Your task to perform on an android device: turn off wifi Image 0: 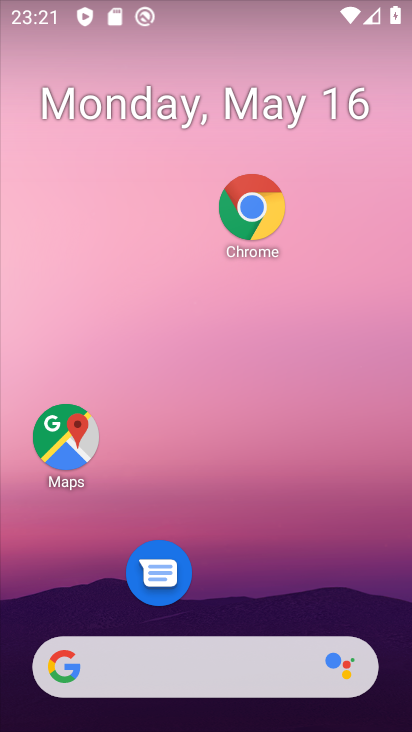
Step 0: drag from (278, 623) to (326, 0)
Your task to perform on an android device: turn off wifi Image 1: 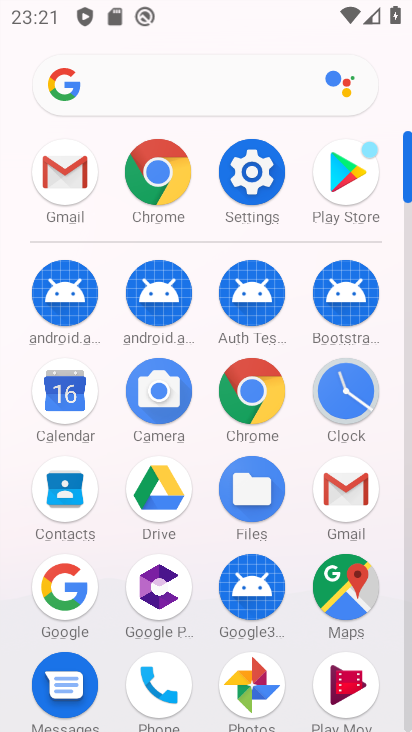
Step 1: click (258, 164)
Your task to perform on an android device: turn off wifi Image 2: 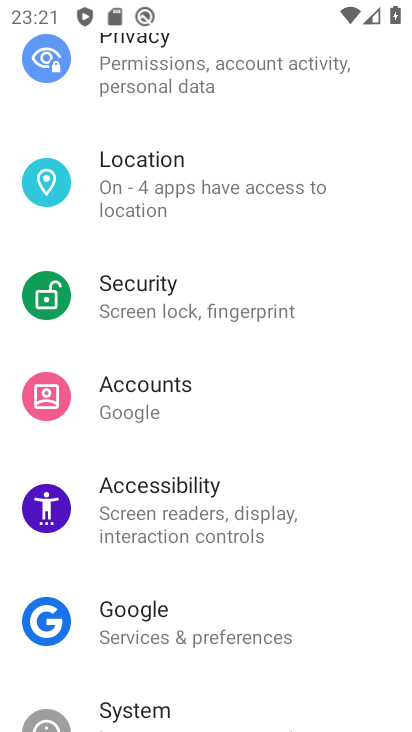
Step 2: drag from (236, 194) to (241, 635)
Your task to perform on an android device: turn off wifi Image 3: 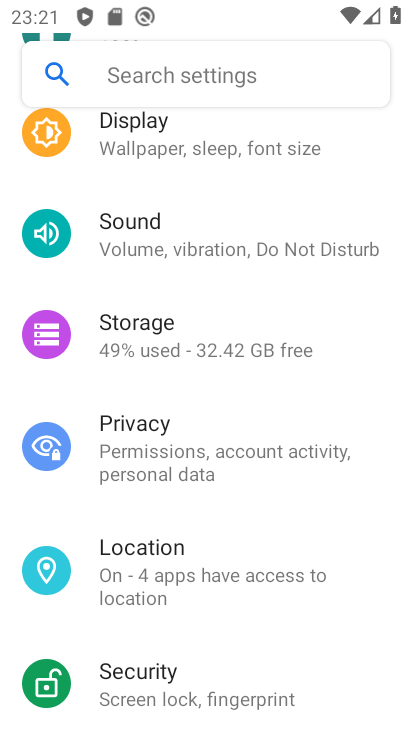
Step 3: drag from (218, 212) to (190, 606)
Your task to perform on an android device: turn off wifi Image 4: 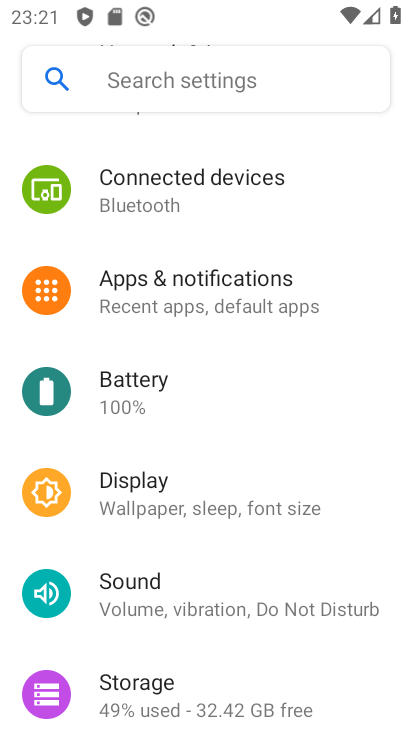
Step 4: drag from (217, 196) to (226, 651)
Your task to perform on an android device: turn off wifi Image 5: 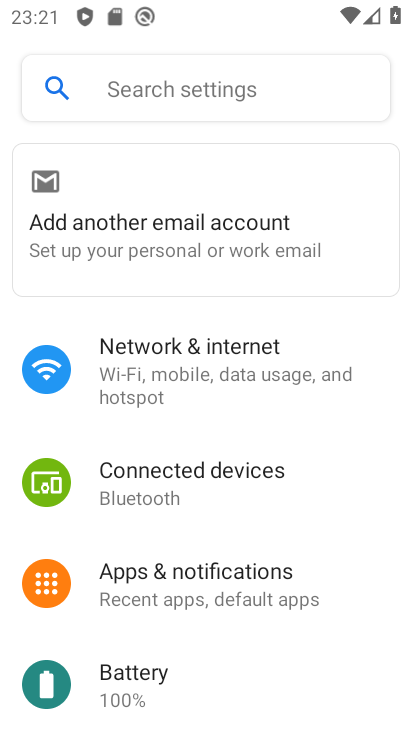
Step 5: click (213, 371)
Your task to perform on an android device: turn off wifi Image 6: 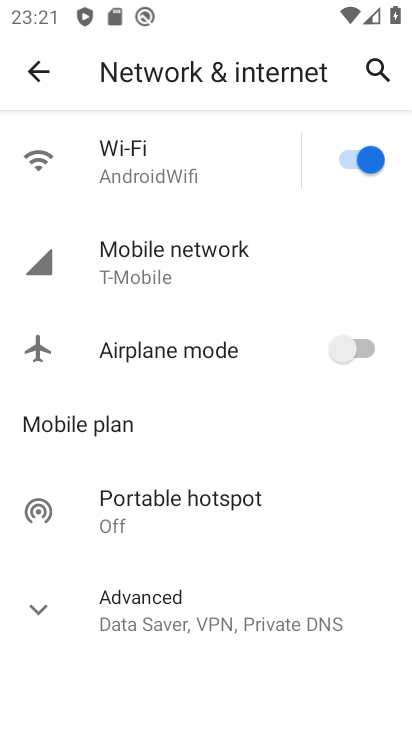
Step 6: click (357, 159)
Your task to perform on an android device: turn off wifi Image 7: 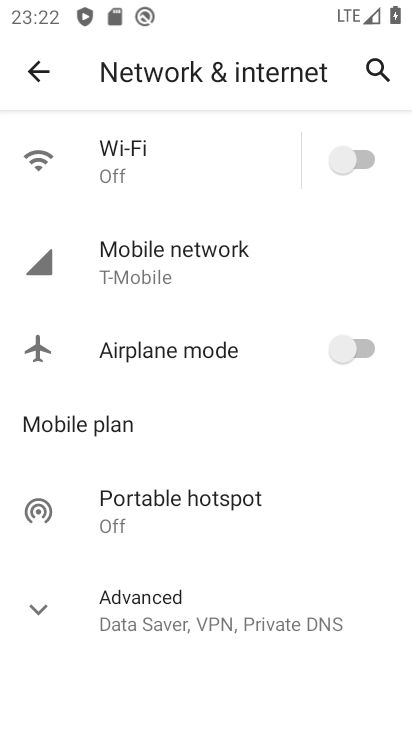
Step 7: task complete